Your task to perform on an android device: change text size in settings app Image 0: 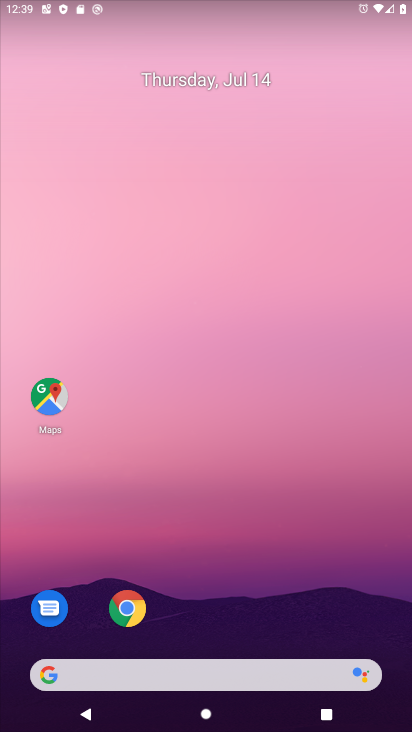
Step 0: drag from (176, 671) to (215, 272)
Your task to perform on an android device: change text size in settings app Image 1: 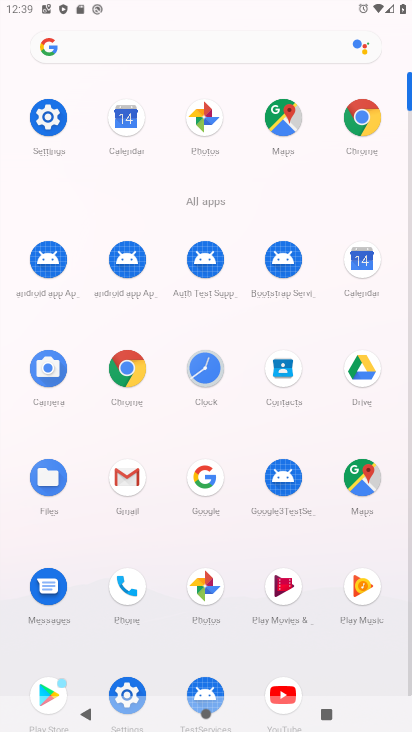
Step 1: click (47, 115)
Your task to perform on an android device: change text size in settings app Image 2: 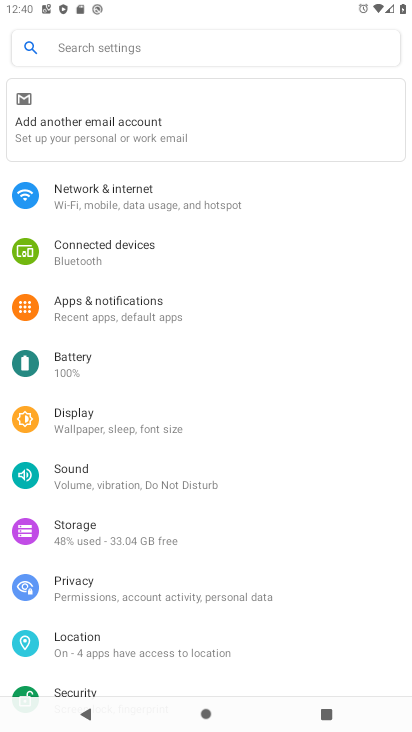
Step 2: drag from (115, 611) to (165, 508)
Your task to perform on an android device: change text size in settings app Image 3: 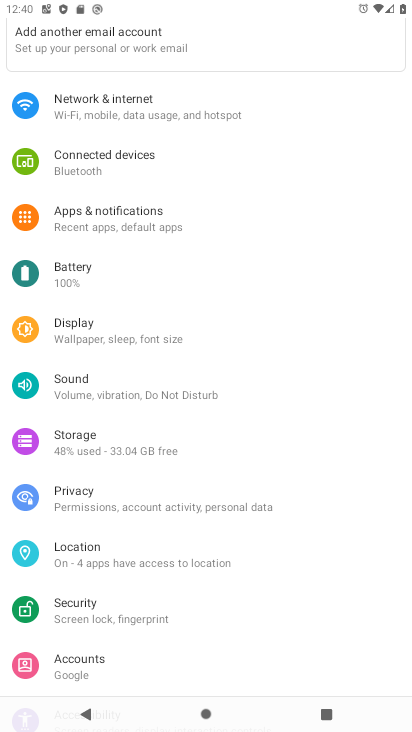
Step 3: drag from (108, 641) to (186, 527)
Your task to perform on an android device: change text size in settings app Image 4: 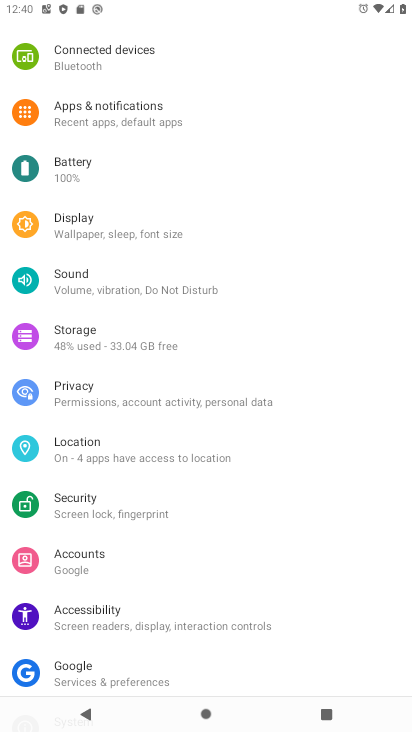
Step 4: drag from (108, 644) to (195, 527)
Your task to perform on an android device: change text size in settings app Image 5: 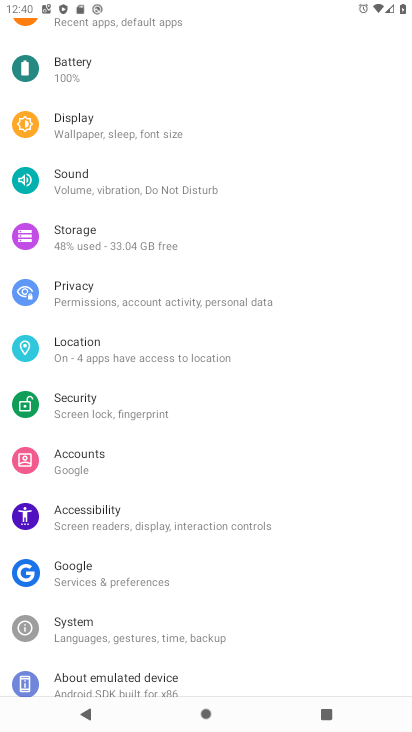
Step 5: drag from (135, 602) to (207, 502)
Your task to perform on an android device: change text size in settings app Image 6: 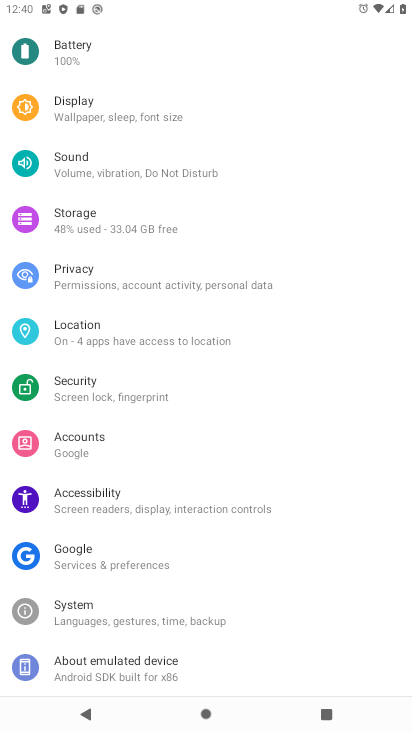
Step 6: click (150, 512)
Your task to perform on an android device: change text size in settings app Image 7: 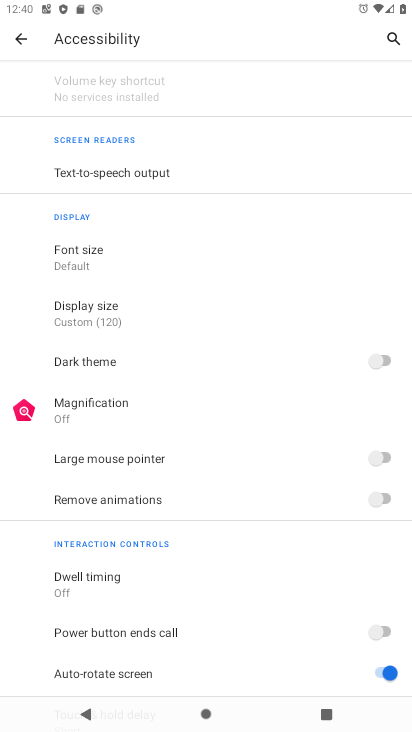
Step 7: click (96, 247)
Your task to perform on an android device: change text size in settings app Image 8: 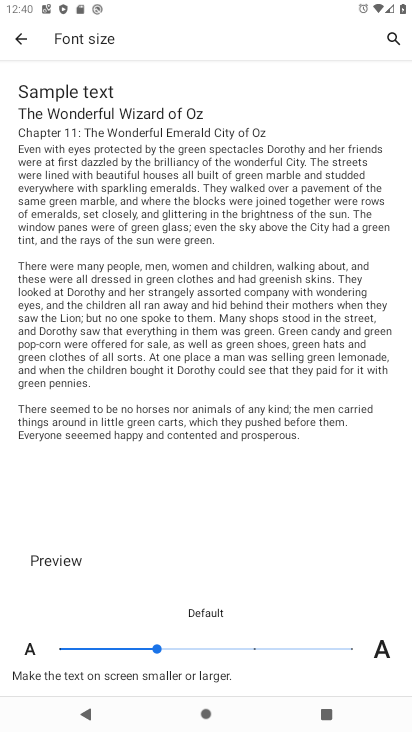
Step 8: click (252, 651)
Your task to perform on an android device: change text size in settings app Image 9: 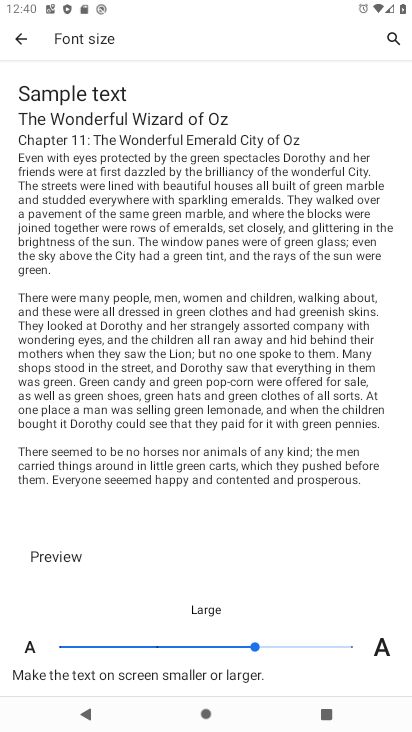
Step 9: task complete